Your task to perform on an android device: Search for custom wallets on Etsy. Image 0: 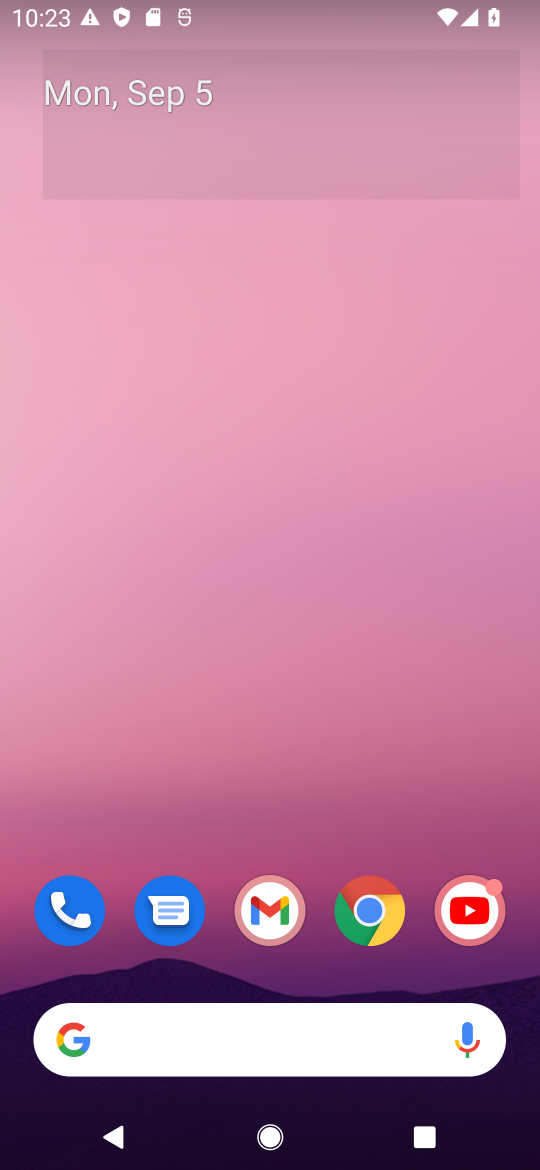
Step 0: click (384, 911)
Your task to perform on an android device: Search for custom wallets on Etsy. Image 1: 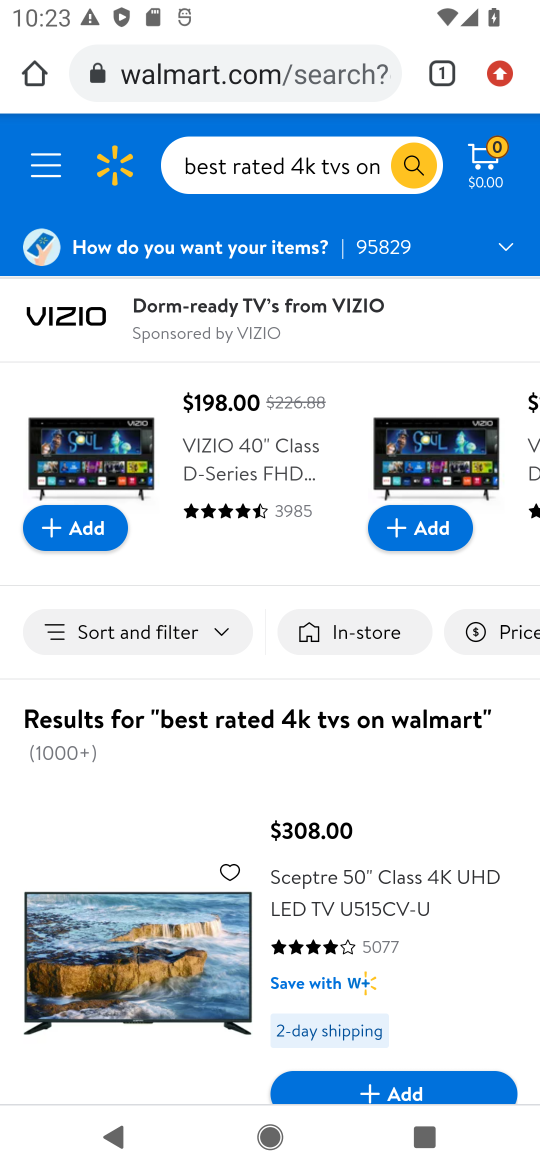
Step 1: click (332, 67)
Your task to perform on an android device: Search for custom wallets on Etsy. Image 2: 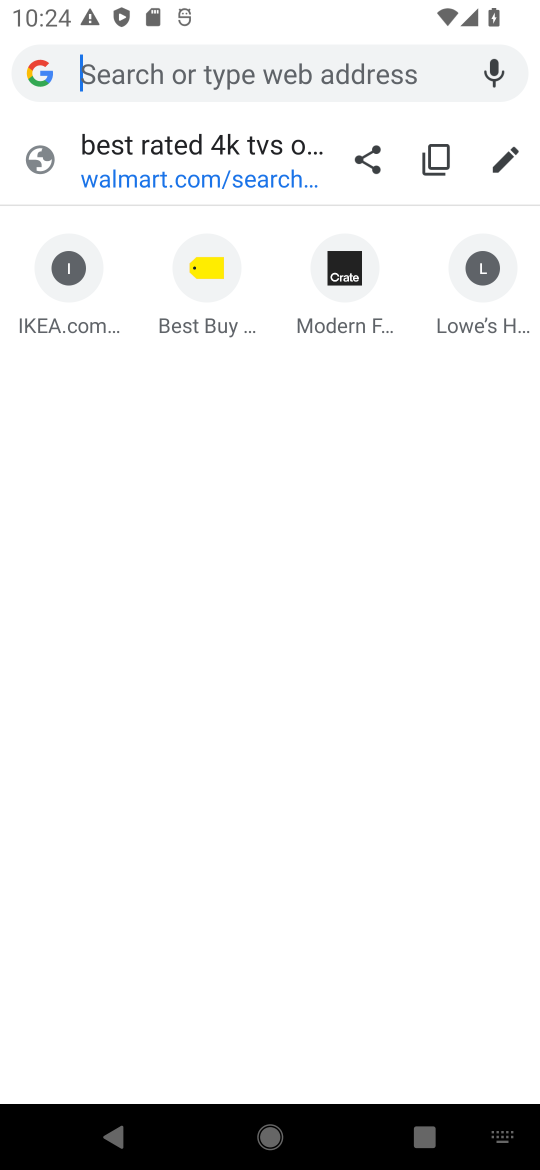
Step 2: click (332, 67)
Your task to perform on an android device: Search for custom wallets on Etsy. Image 3: 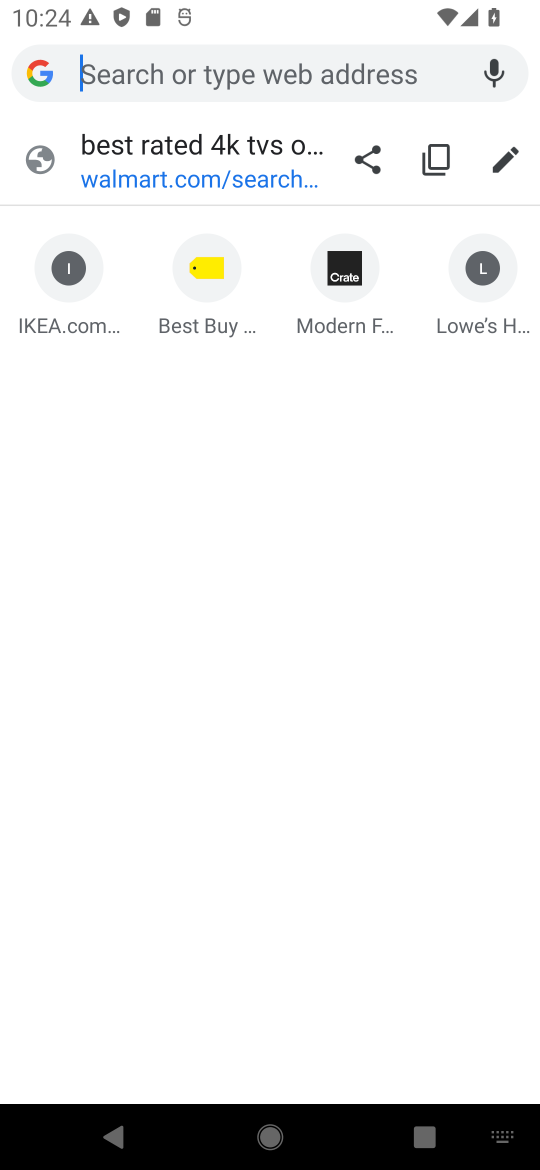
Step 3: click (332, 67)
Your task to perform on an android device: Search for custom wallets on Etsy. Image 4: 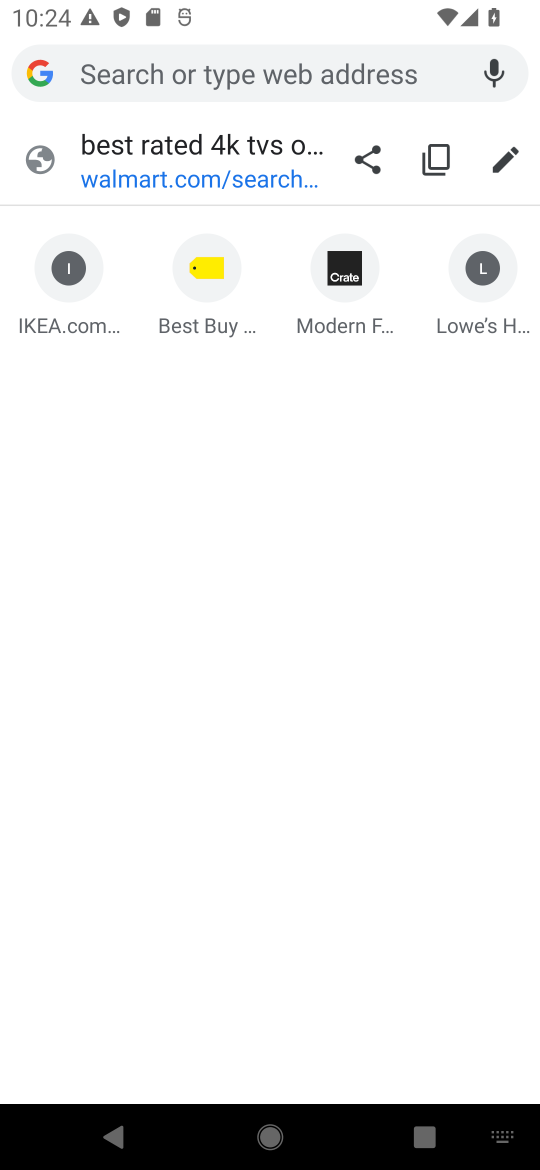
Step 4: type "etsy"
Your task to perform on an android device: Search for custom wallets on Etsy. Image 5: 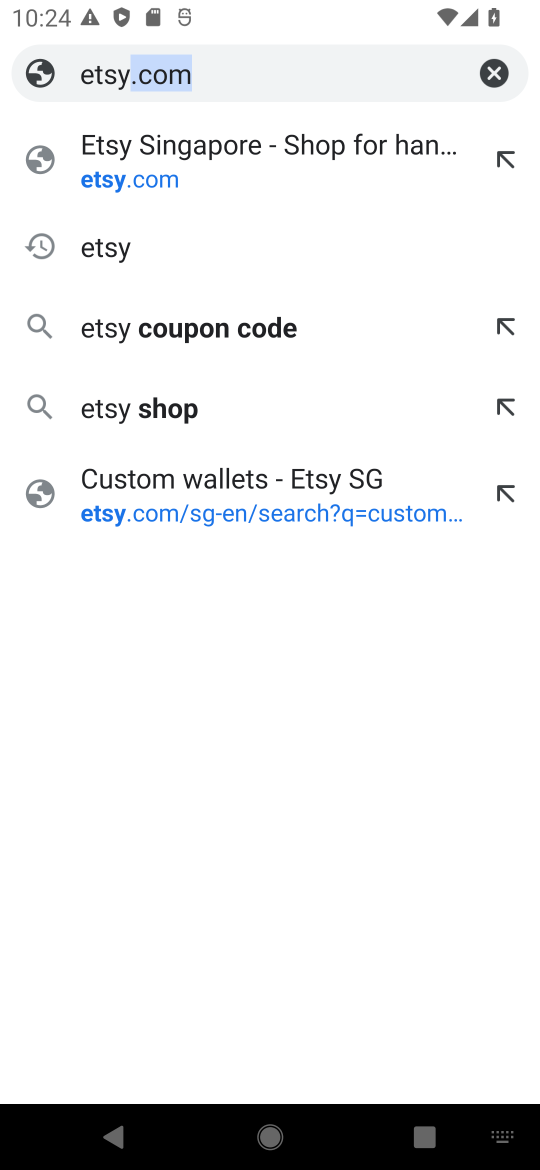
Step 5: click (369, 490)
Your task to perform on an android device: Search for custom wallets on Etsy. Image 6: 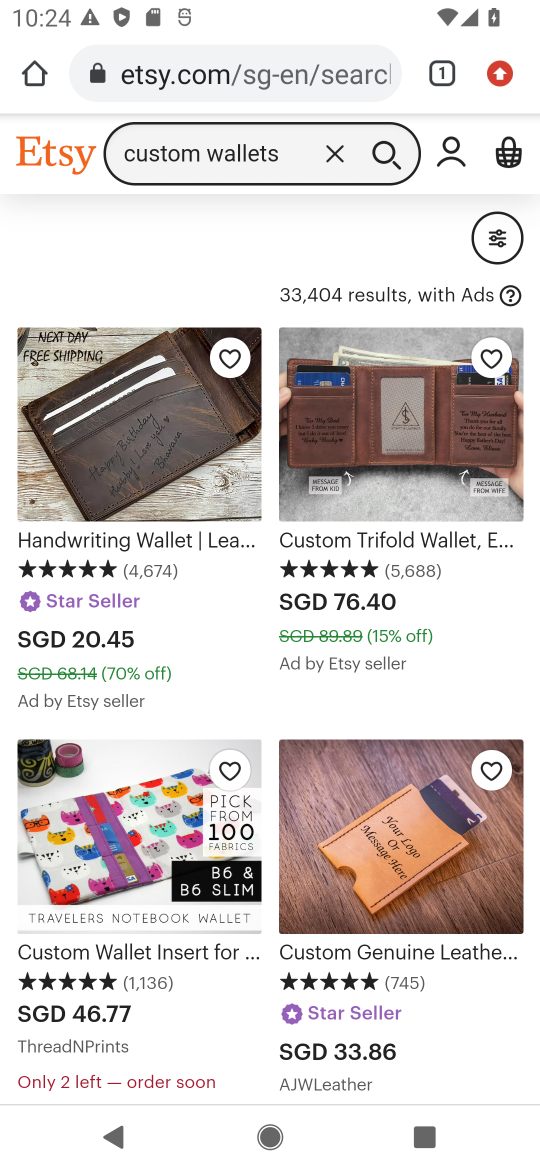
Step 6: task complete